Your task to perform on an android device: move an email to a new category in the gmail app Image 0: 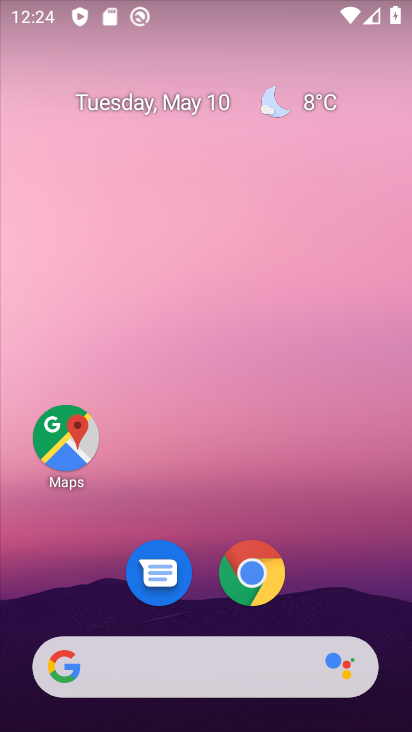
Step 0: drag from (214, 589) to (317, 7)
Your task to perform on an android device: move an email to a new category in the gmail app Image 1: 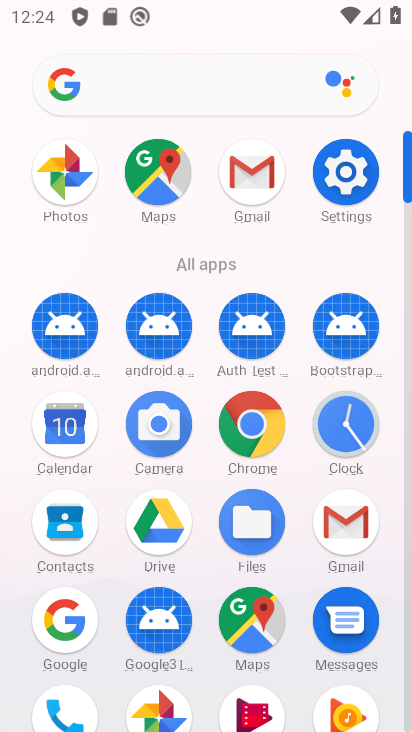
Step 1: click (360, 533)
Your task to perform on an android device: move an email to a new category in the gmail app Image 2: 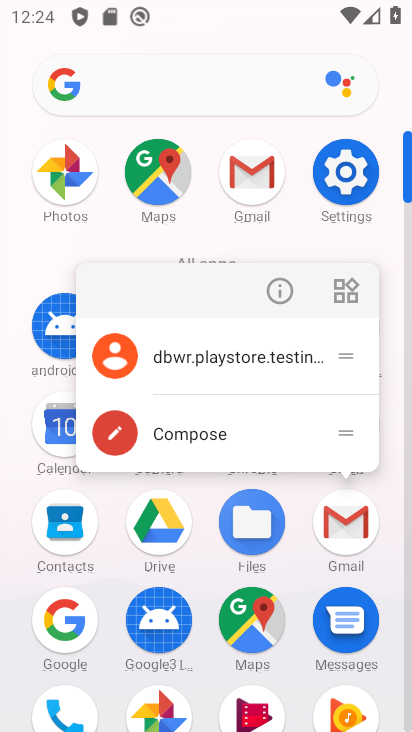
Step 2: click (347, 514)
Your task to perform on an android device: move an email to a new category in the gmail app Image 3: 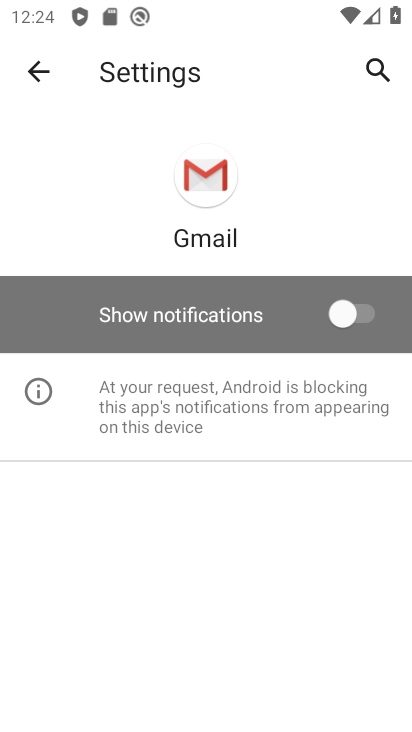
Step 3: click (41, 76)
Your task to perform on an android device: move an email to a new category in the gmail app Image 4: 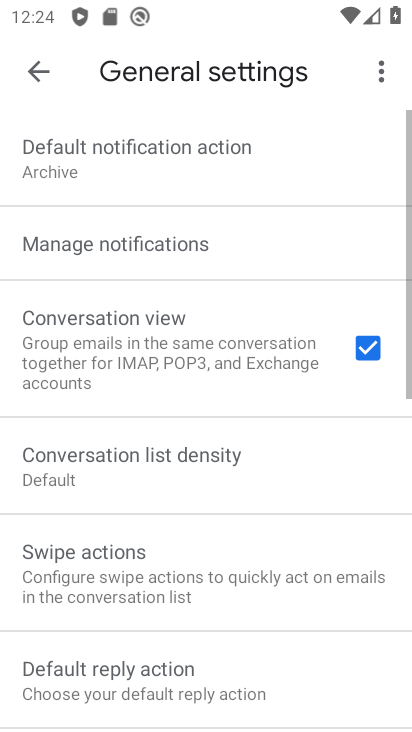
Step 4: click (39, 78)
Your task to perform on an android device: move an email to a new category in the gmail app Image 5: 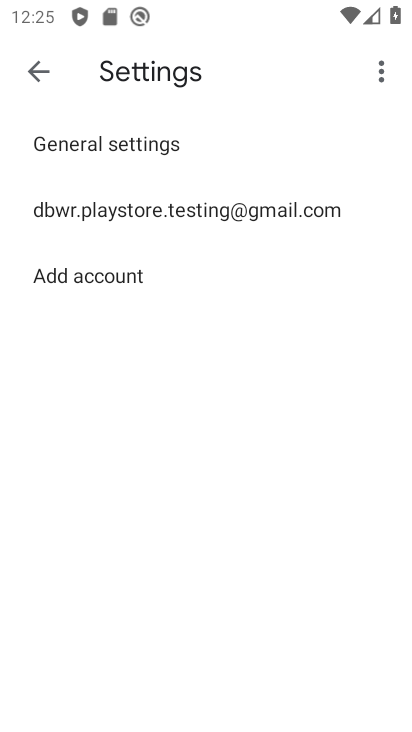
Step 5: click (38, 79)
Your task to perform on an android device: move an email to a new category in the gmail app Image 6: 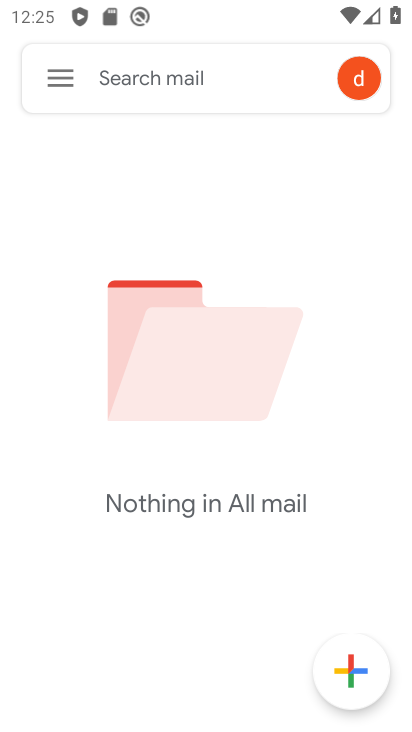
Step 6: click (44, 77)
Your task to perform on an android device: move an email to a new category in the gmail app Image 7: 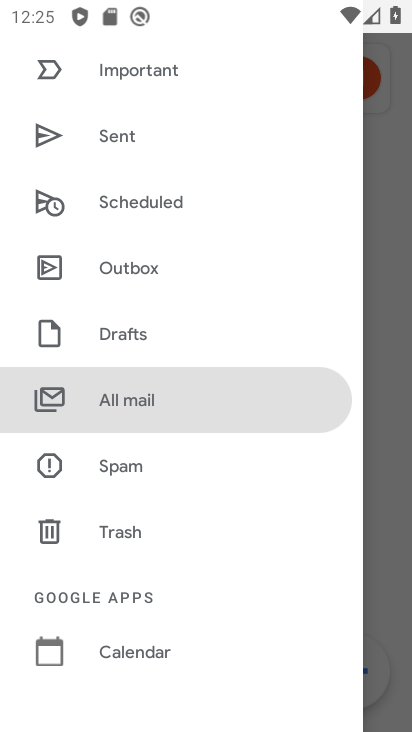
Step 7: click (151, 398)
Your task to perform on an android device: move an email to a new category in the gmail app Image 8: 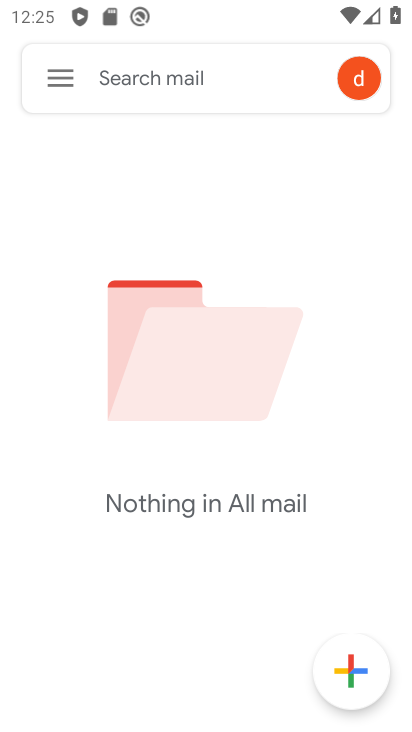
Step 8: task complete